Your task to perform on an android device: Go to ESPN.com Image 0: 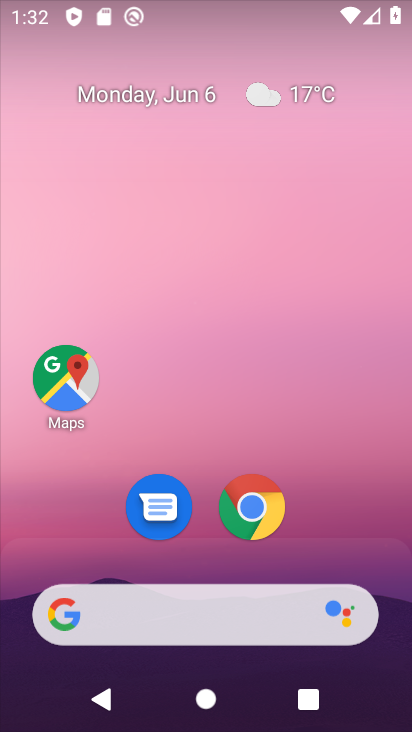
Step 0: click (262, 496)
Your task to perform on an android device: Go to ESPN.com Image 1: 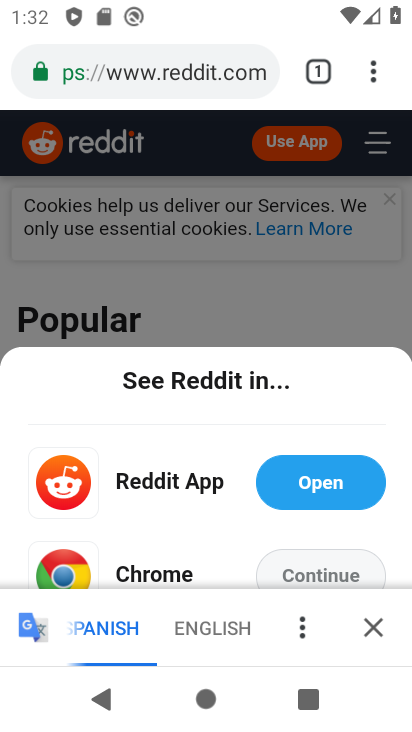
Step 1: click (154, 80)
Your task to perform on an android device: Go to ESPN.com Image 2: 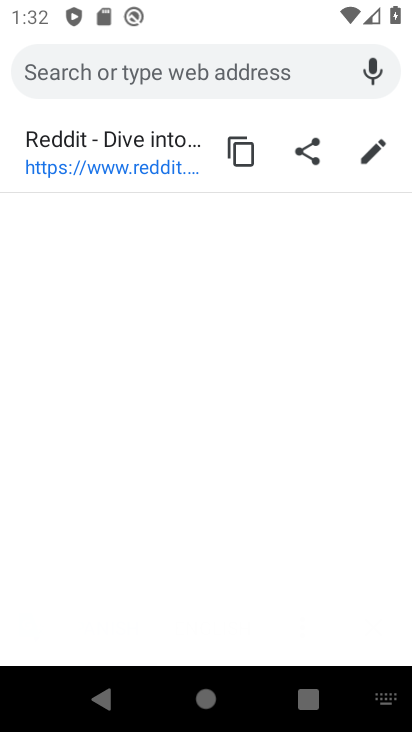
Step 2: type "espn.com"
Your task to perform on an android device: Go to ESPN.com Image 3: 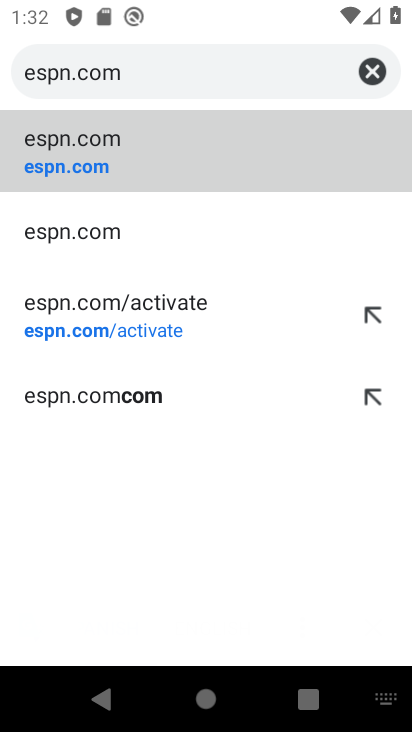
Step 3: click (88, 171)
Your task to perform on an android device: Go to ESPN.com Image 4: 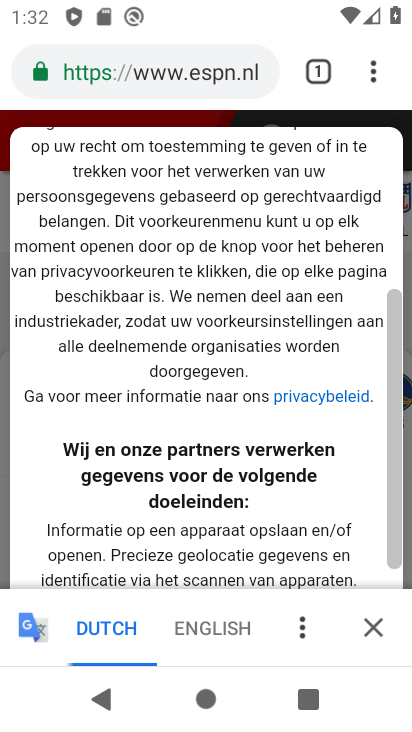
Step 4: drag from (262, 546) to (226, 181)
Your task to perform on an android device: Go to ESPN.com Image 5: 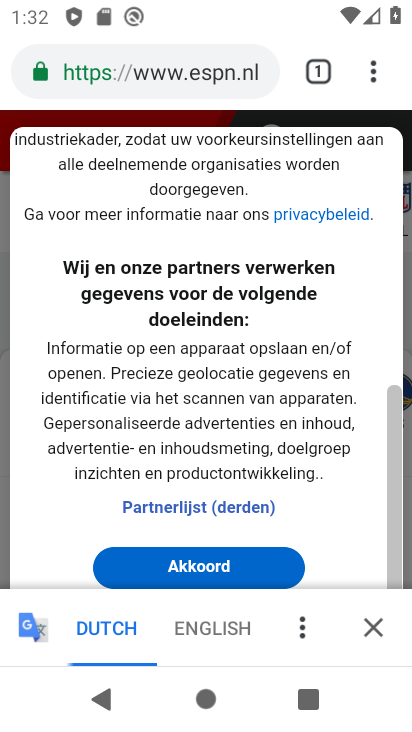
Step 5: click (275, 555)
Your task to perform on an android device: Go to ESPN.com Image 6: 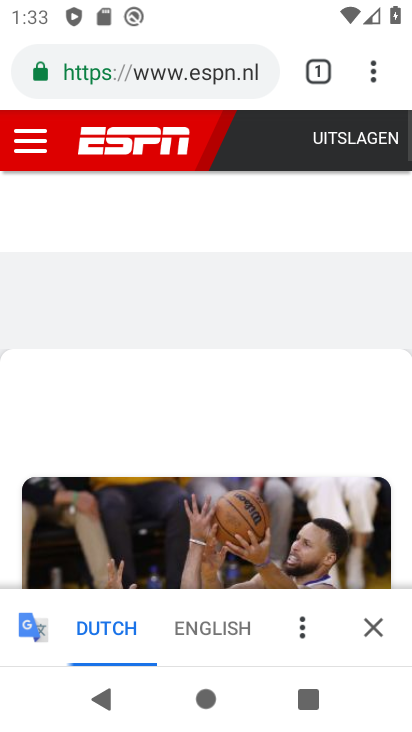
Step 6: task complete